Your task to perform on an android device: toggle show notifications on the lock screen Image 0: 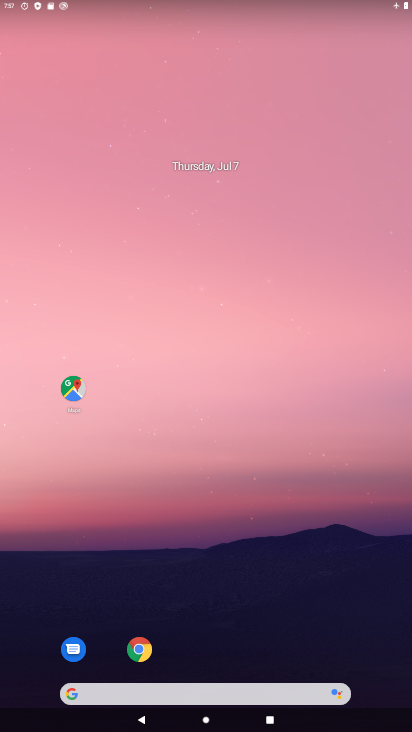
Step 0: drag from (217, 658) to (244, 6)
Your task to perform on an android device: toggle show notifications on the lock screen Image 1: 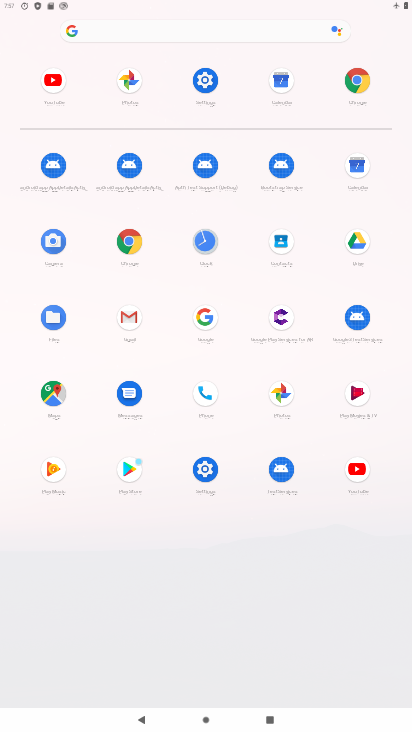
Step 1: click (206, 74)
Your task to perform on an android device: toggle show notifications on the lock screen Image 2: 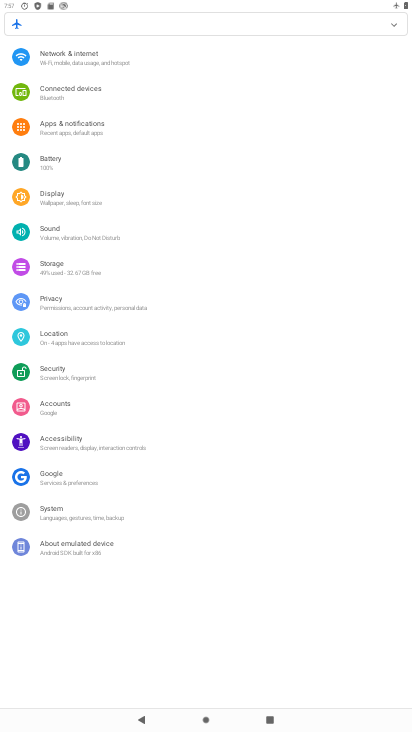
Step 2: click (100, 125)
Your task to perform on an android device: toggle show notifications on the lock screen Image 3: 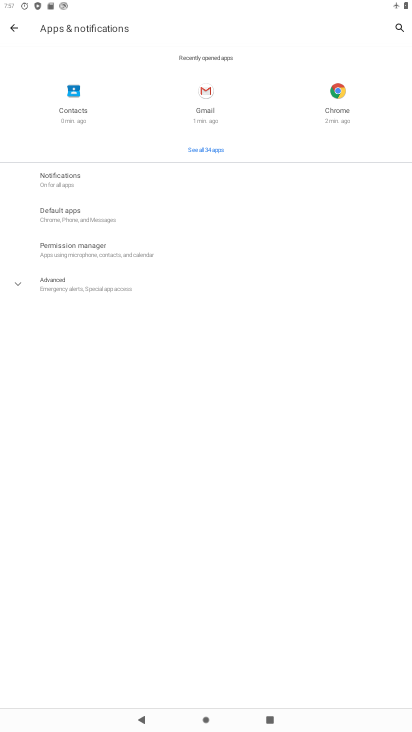
Step 3: click (91, 176)
Your task to perform on an android device: toggle show notifications on the lock screen Image 4: 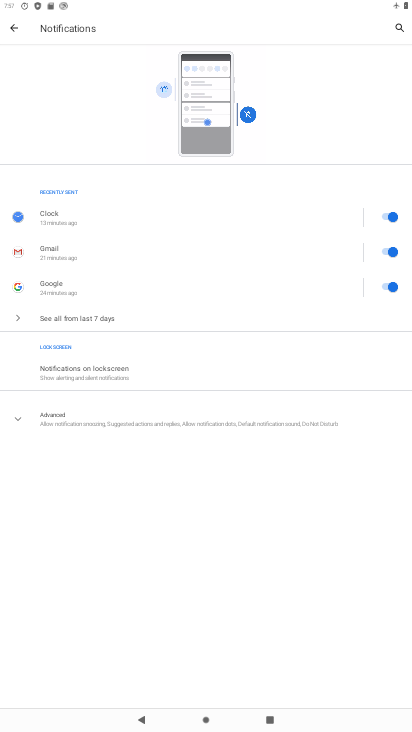
Step 4: click (118, 377)
Your task to perform on an android device: toggle show notifications on the lock screen Image 5: 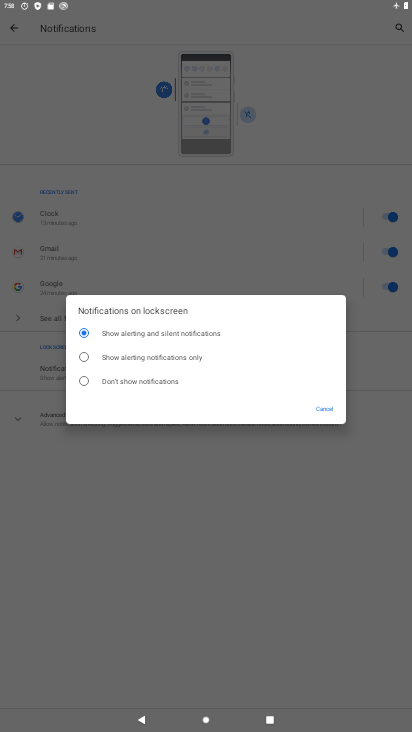
Step 5: click (85, 357)
Your task to perform on an android device: toggle show notifications on the lock screen Image 6: 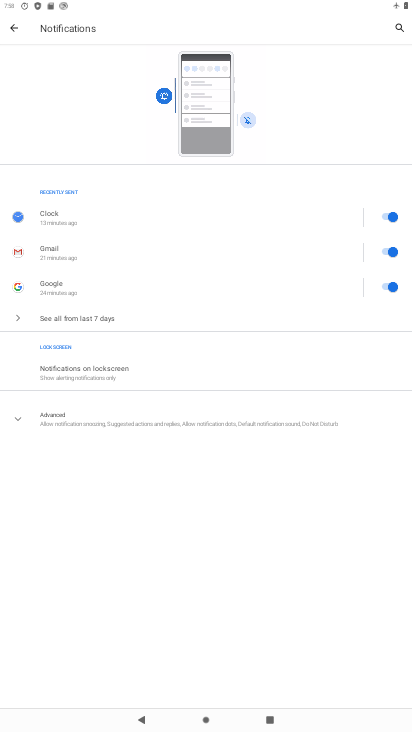
Step 6: task complete